Your task to perform on an android device: allow notifications from all sites in the chrome app Image 0: 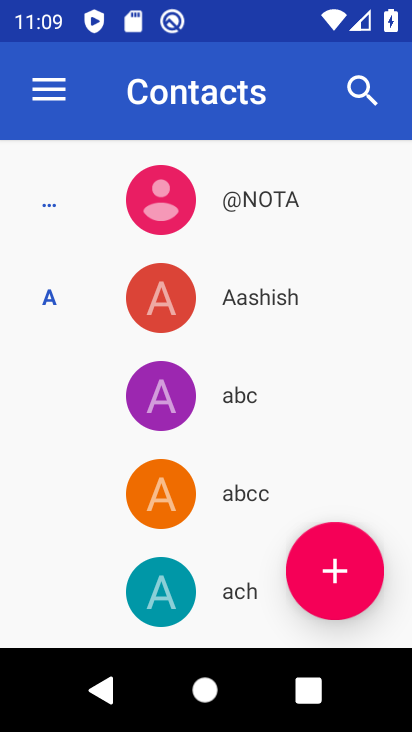
Step 0: press back button
Your task to perform on an android device: allow notifications from all sites in the chrome app Image 1: 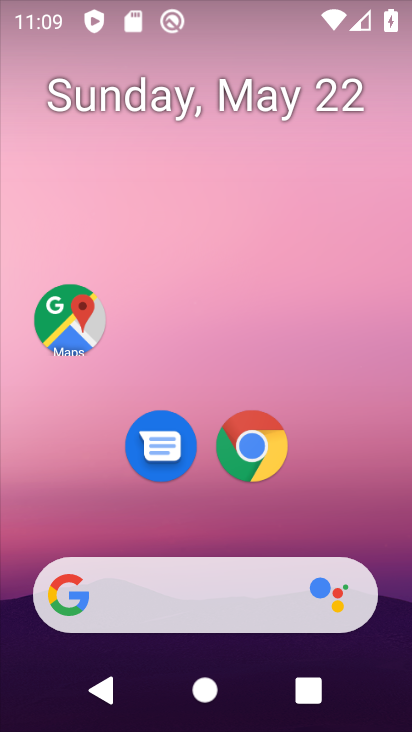
Step 1: click (279, 440)
Your task to perform on an android device: allow notifications from all sites in the chrome app Image 2: 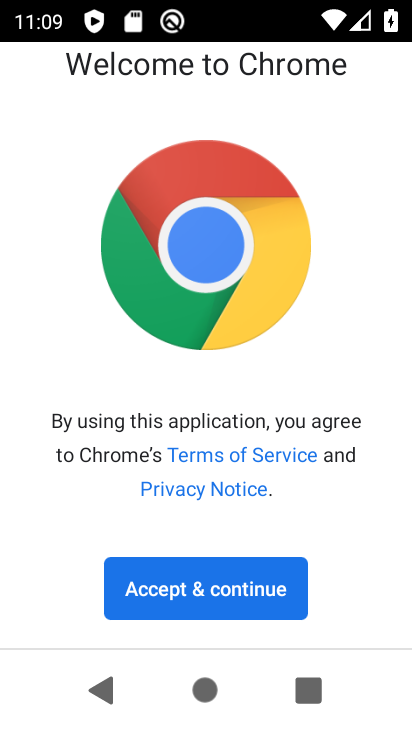
Step 2: click (242, 598)
Your task to perform on an android device: allow notifications from all sites in the chrome app Image 3: 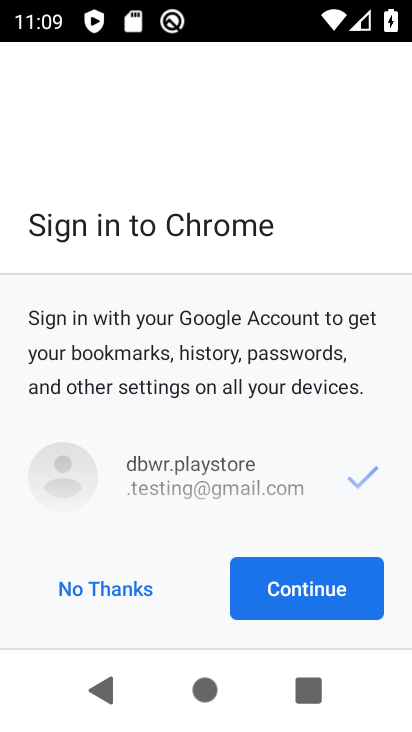
Step 3: click (284, 584)
Your task to perform on an android device: allow notifications from all sites in the chrome app Image 4: 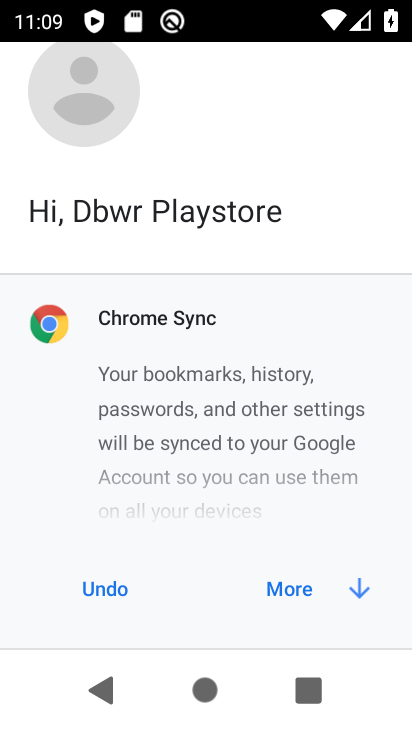
Step 4: click (296, 594)
Your task to perform on an android device: allow notifications from all sites in the chrome app Image 5: 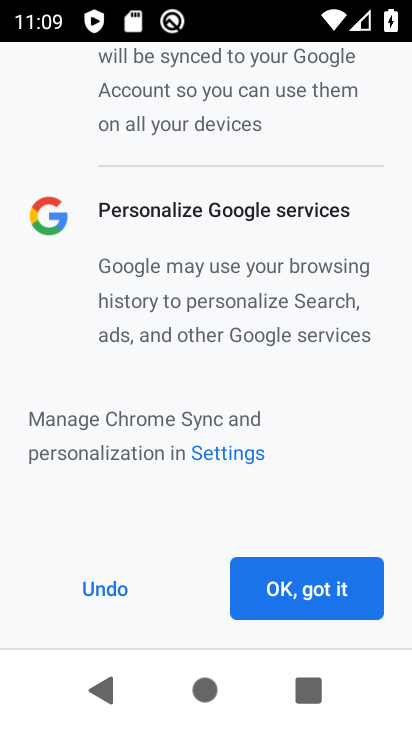
Step 5: click (291, 569)
Your task to perform on an android device: allow notifications from all sites in the chrome app Image 6: 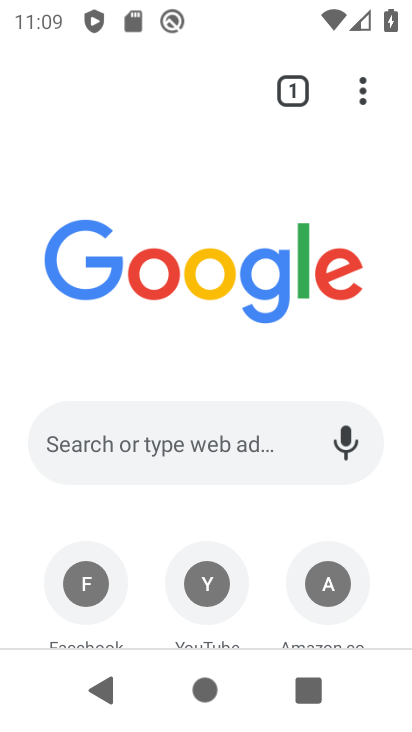
Step 6: drag from (366, 94) to (120, 471)
Your task to perform on an android device: allow notifications from all sites in the chrome app Image 7: 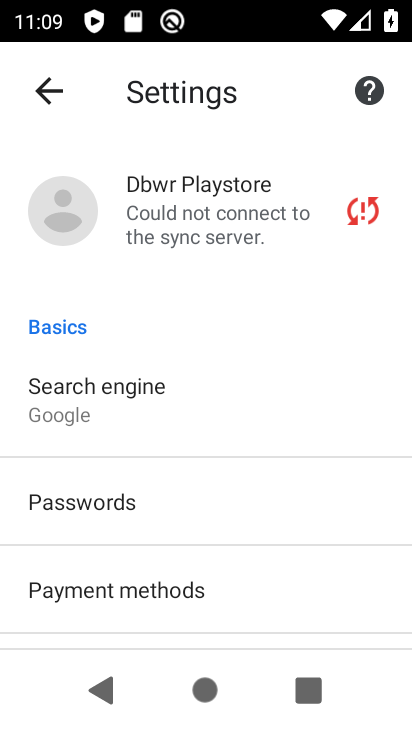
Step 7: drag from (130, 600) to (131, 265)
Your task to perform on an android device: allow notifications from all sites in the chrome app Image 8: 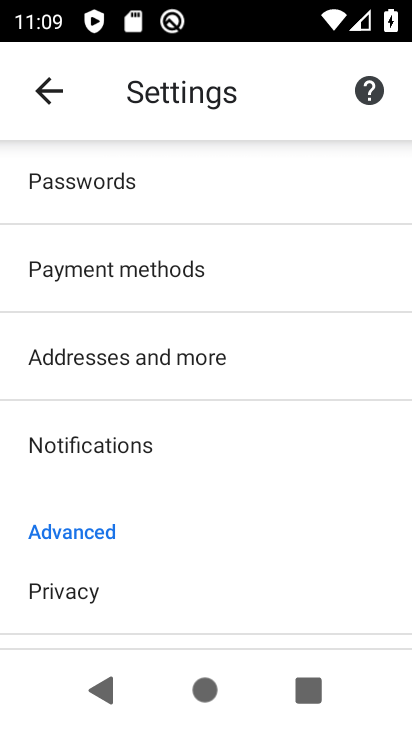
Step 8: click (89, 421)
Your task to perform on an android device: allow notifications from all sites in the chrome app Image 9: 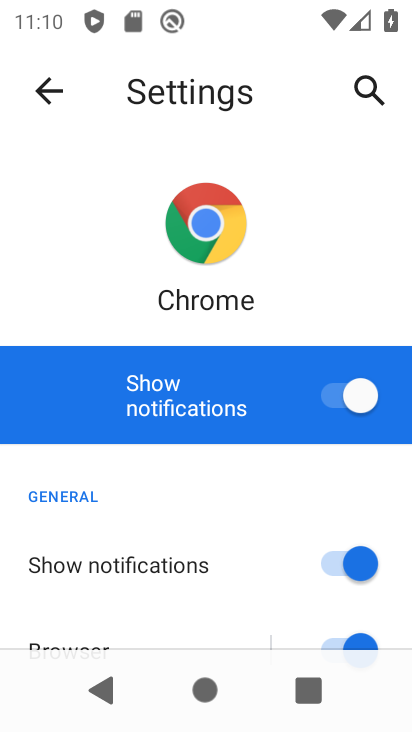
Step 9: task complete